Your task to perform on an android device: turn on location history Image 0: 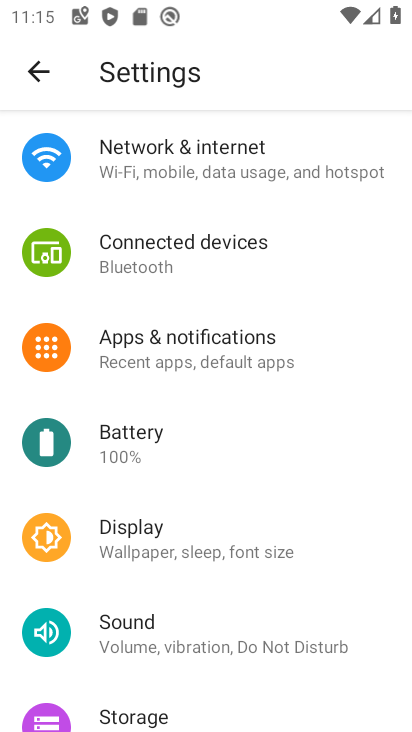
Step 0: press home button
Your task to perform on an android device: turn on location history Image 1: 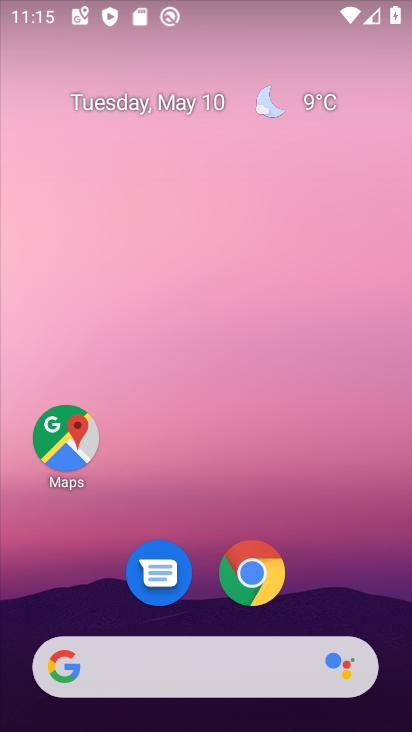
Step 1: drag from (220, 724) to (210, 145)
Your task to perform on an android device: turn on location history Image 2: 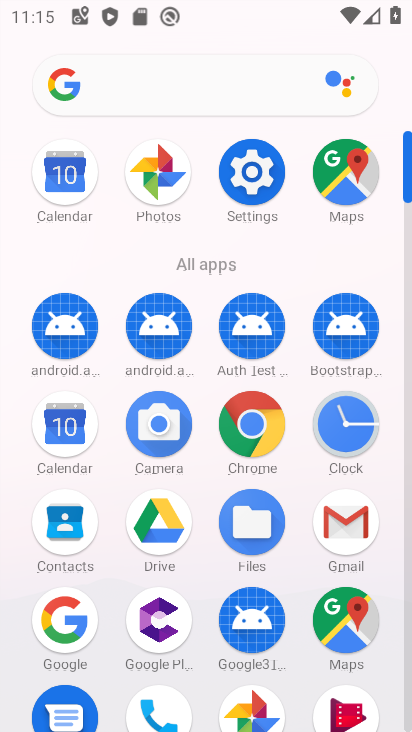
Step 2: click (248, 177)
Your task to perform on an android device: turn on location history Image 3: 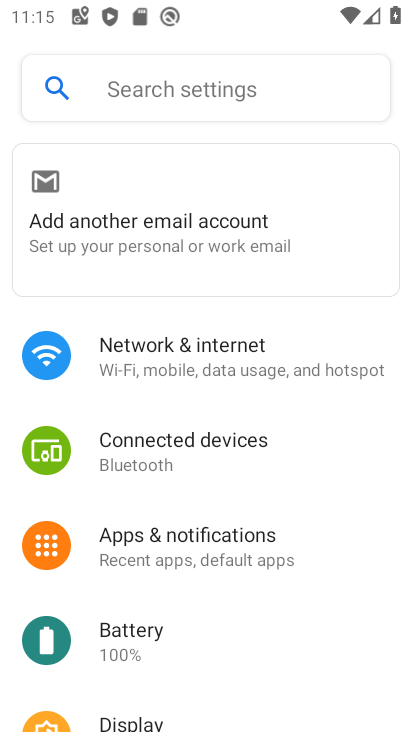
Step 3: drag from (169, 691) to (173, 354)
Your task to perform on an android device: turn on location history Image 4: 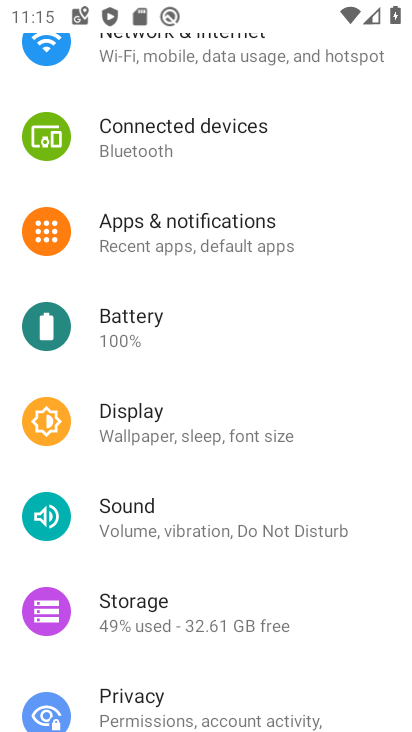
Step 4: drag from (191, 666) to (182, 339)
Your task to perform on an android device: turn on location history Image 5: 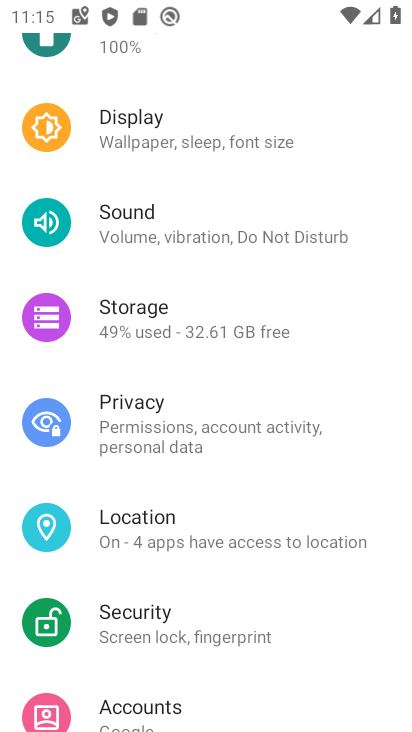
Step 5: click (148, 517)
Your task to perform on an android device: turn on location history Image 6: 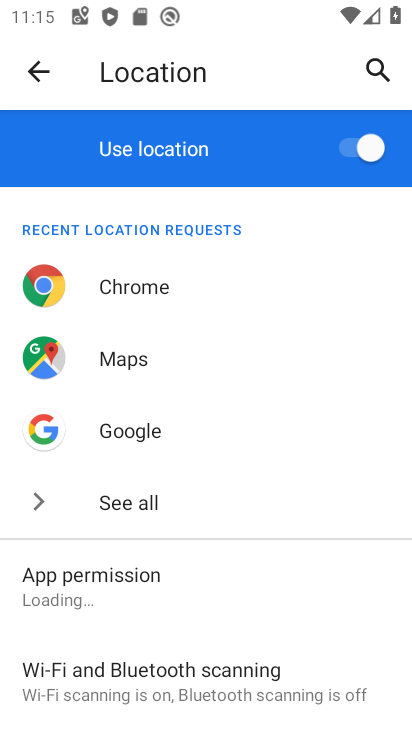
Step 6: drag from (167, 635) to (172, 302)
Your task to perform on an android device: turn on location history Image 7: 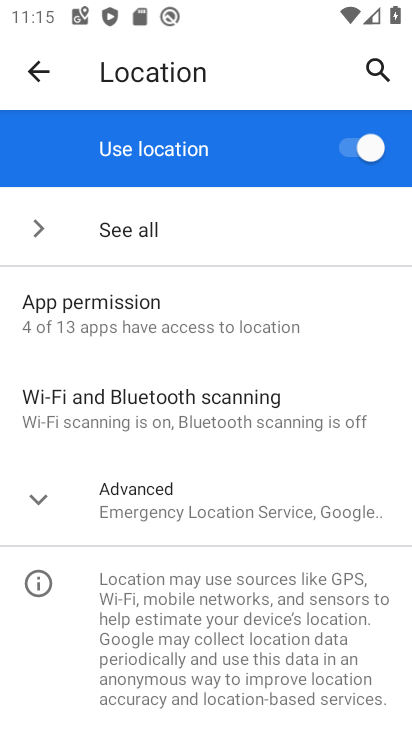
Step 7: click (147, 506)
Your task to perform on an android device: turn on location history Image 8: 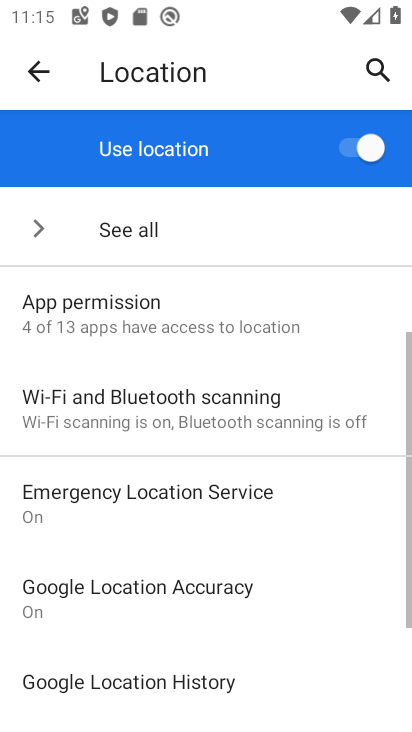
Step 8: drag from (199, 677) to (193, 458)
Your task to perform on an android device: turn on location history Image 9: 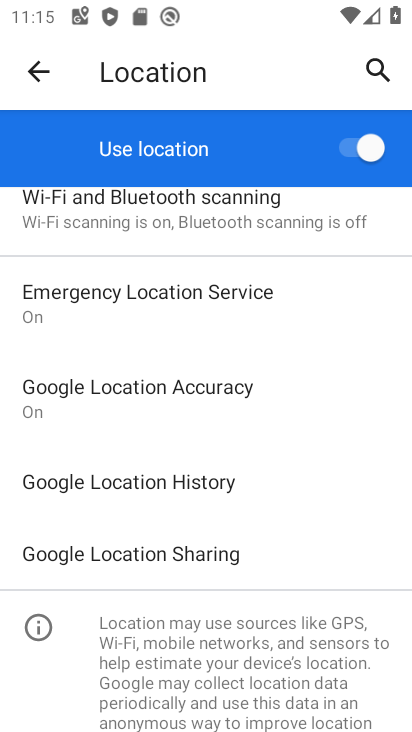
Step 9: click (140, 476)
Your task to perform on an android device: turn on location history Image 10: 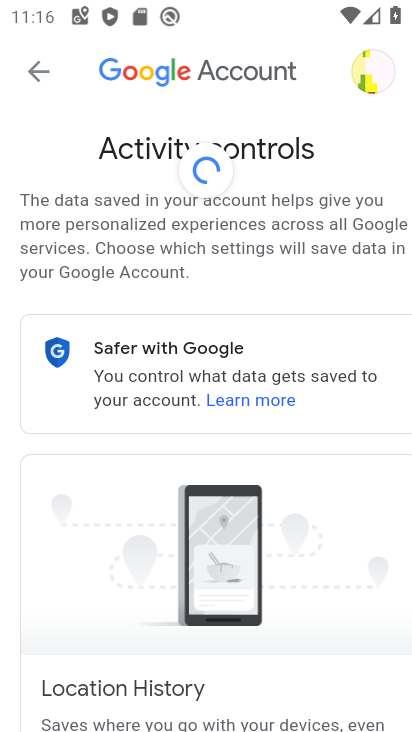
Step 10: drag from (214, 676) to (216, 256)
Your task to perform on an android device: turn on location history Image 11: 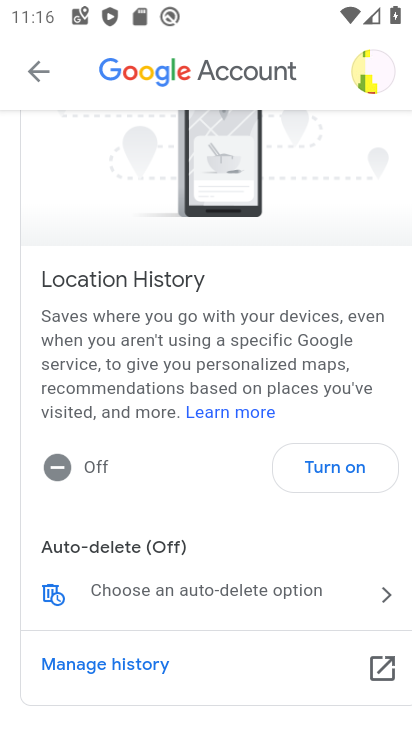
Step 11: click (337, 459)
Your task to perform on an android device: turn on location history Image 12: 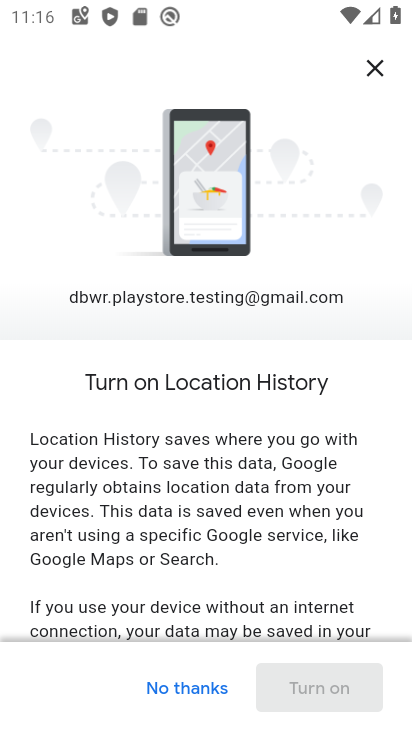
Step 12: drag from (286, 609) to (267, 243)
Your task to perform on an android device: turn on location history Image 13: 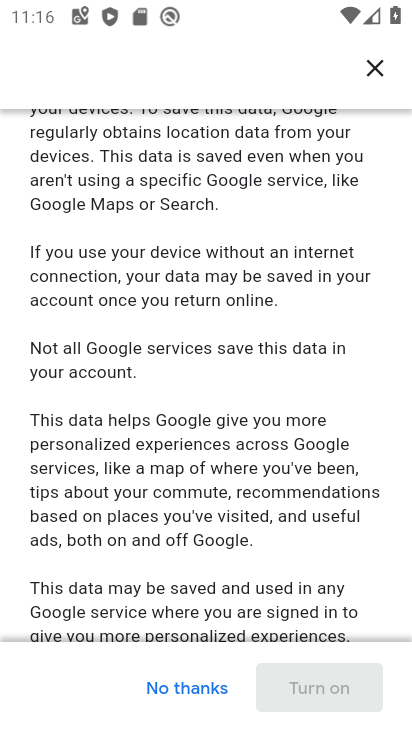
Step 13: drag from (272, 587) to (251, 249)
Your task to perform on an android device: turn on location history Image 14: 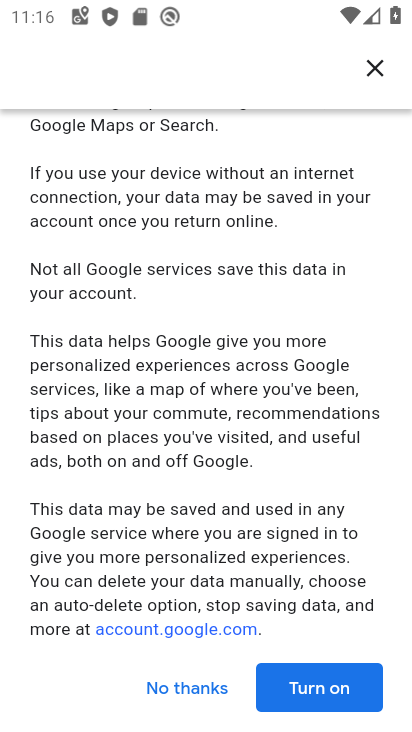
Step 14: click (326, 685)
Your task to perform on an android device: turn on location history Image 15: 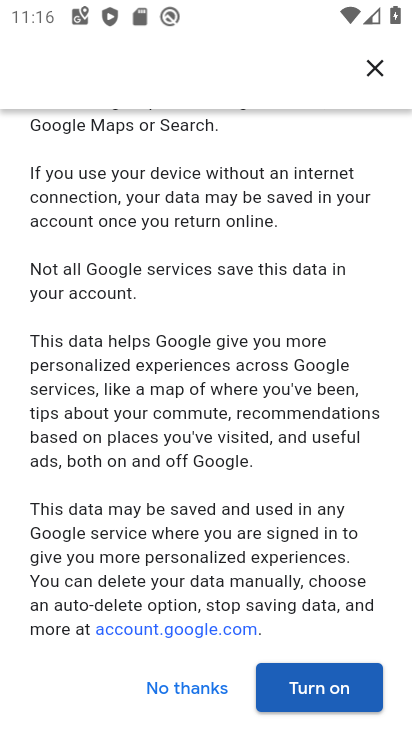
Step 15: click (321, 691)
Your task to perform on an android device: turn on location history Image 16: 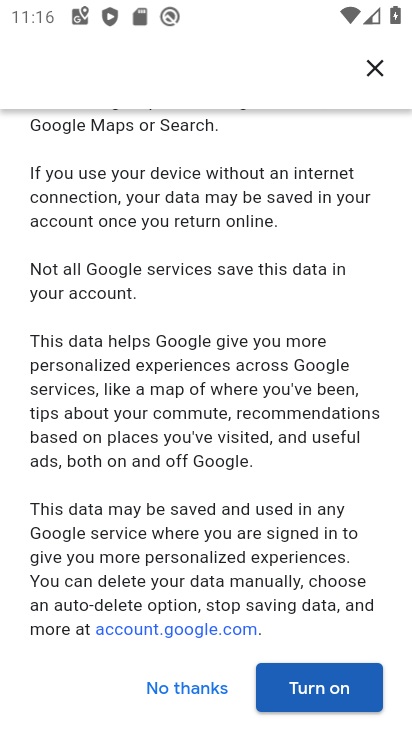
Step 16: click (323, 687)
Your task to perform on an android device: turn on location history Image 17: 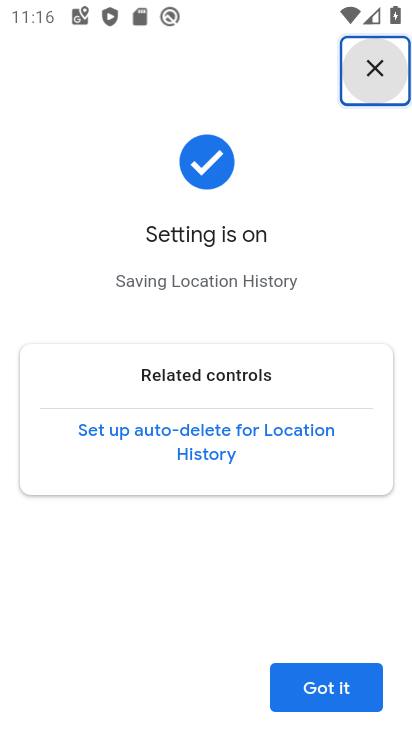
Step 17: task complete